Your task to perform on an android device: refresh tabs in the chrome app Image 0: 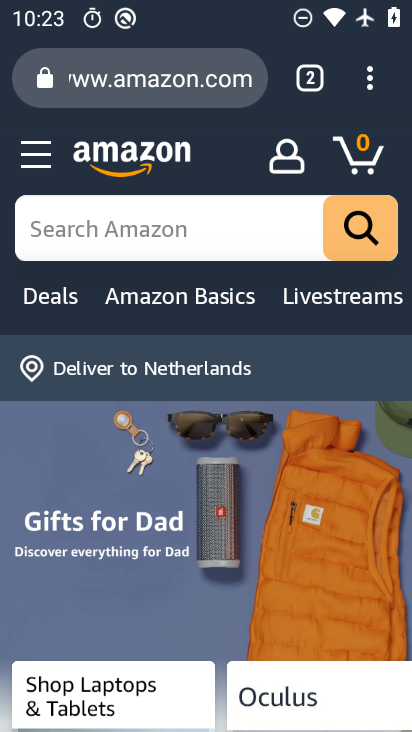
Step 0: press home button
Your task to perform on an android device: refresh tabs in the chrome app Image 1: 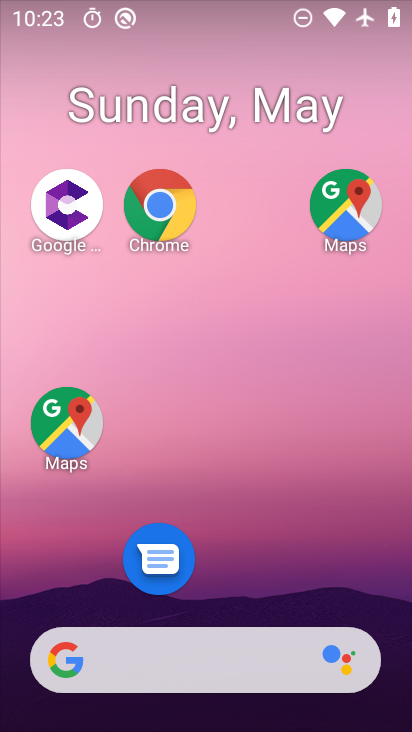
Step 1: click (180, 205)
Your task to perform on an android device: refresh tabs in the chrome app Image 2: 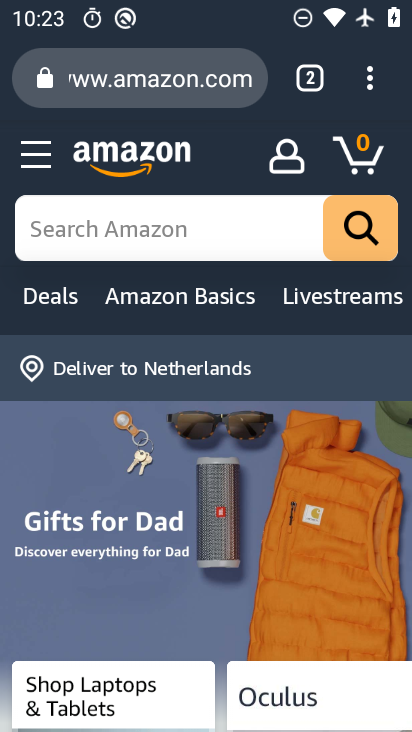
Step 2: click (378, 78)
Your task to perform on an android device: refresh tabs in the chrome app Image 3: 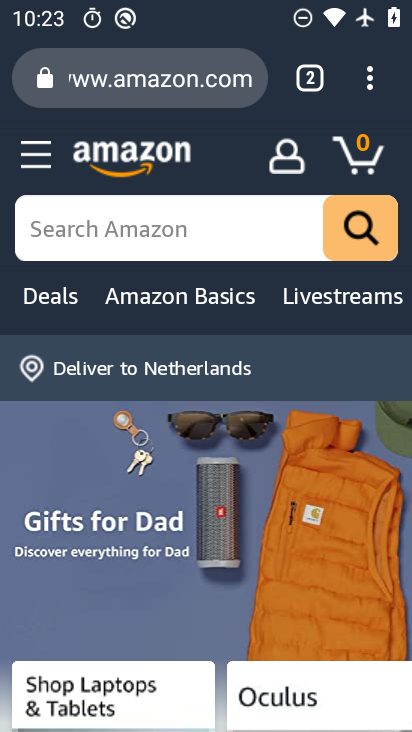
Step 3: click (382, 72)
Your task to perform on an android device: refresh tabs in the chrome app Image 4: 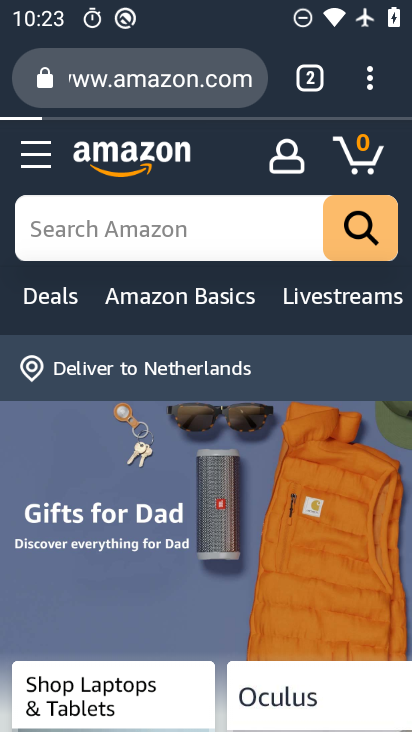
Step 4: click (376, 72)
Your task to perform on an android device: refresh tabs in the chrome app Image 5: 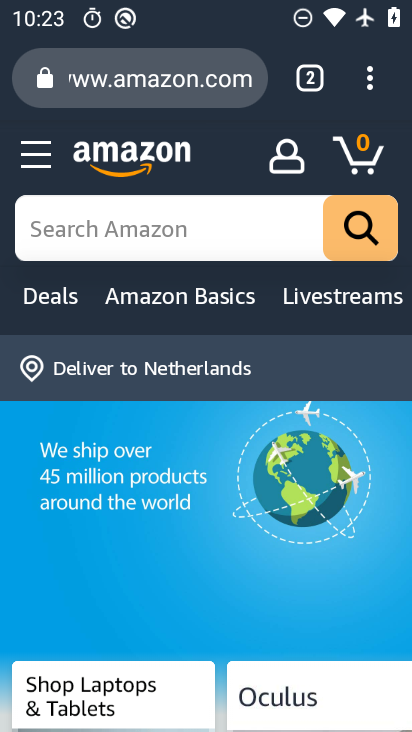
Step 5: task complete